Your task to perform on an android device: Search for the best rated headphones on Amazon. Image 0: 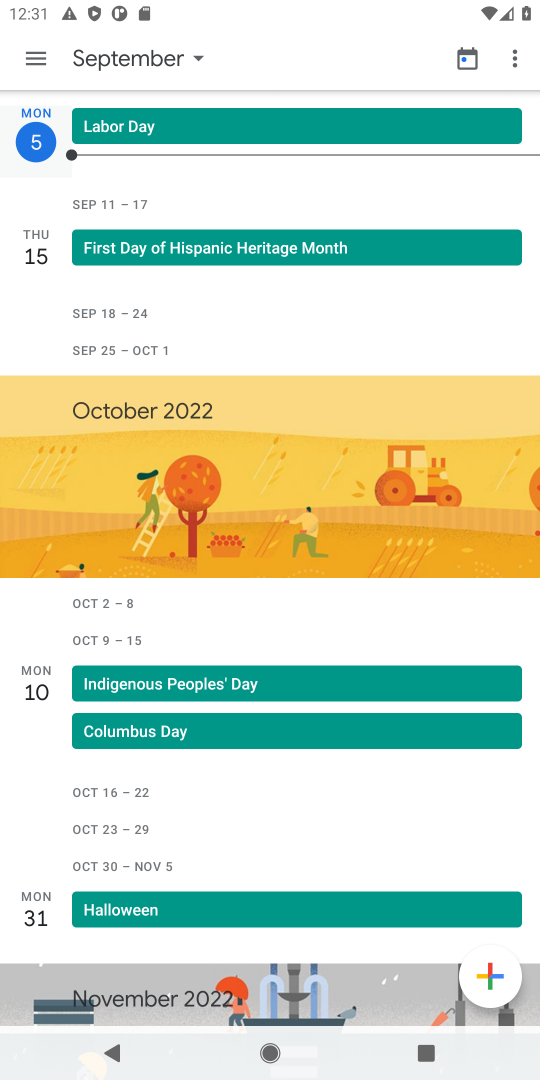
Step 0: press home button
Your task to perform on an android device: Search for the best rated headphones on Amazon. Image 1: 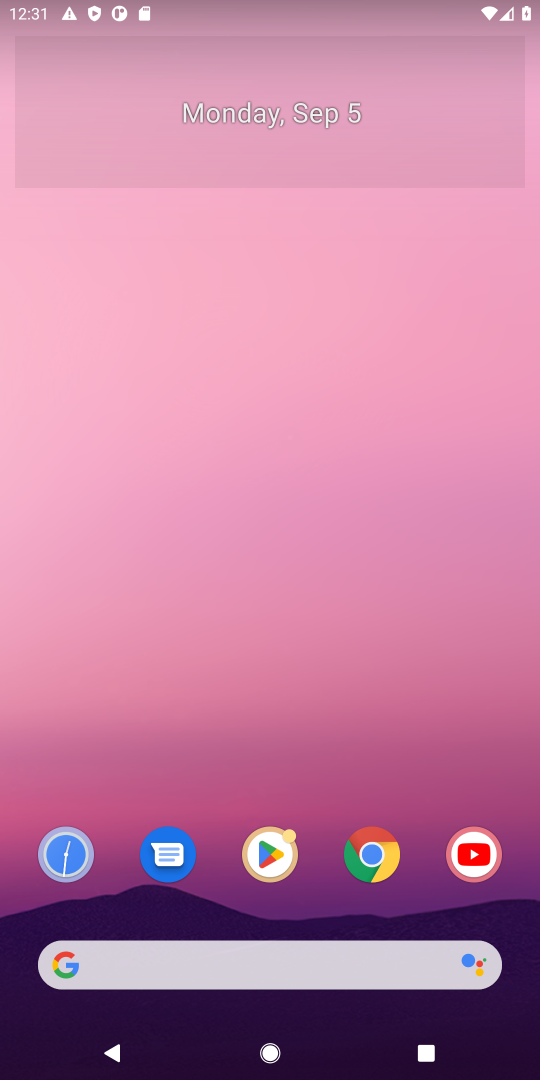
Step 1: click (284, 961)
Your task to perform on an android device: Search for the best rated headphones on Amazon. Image 2: 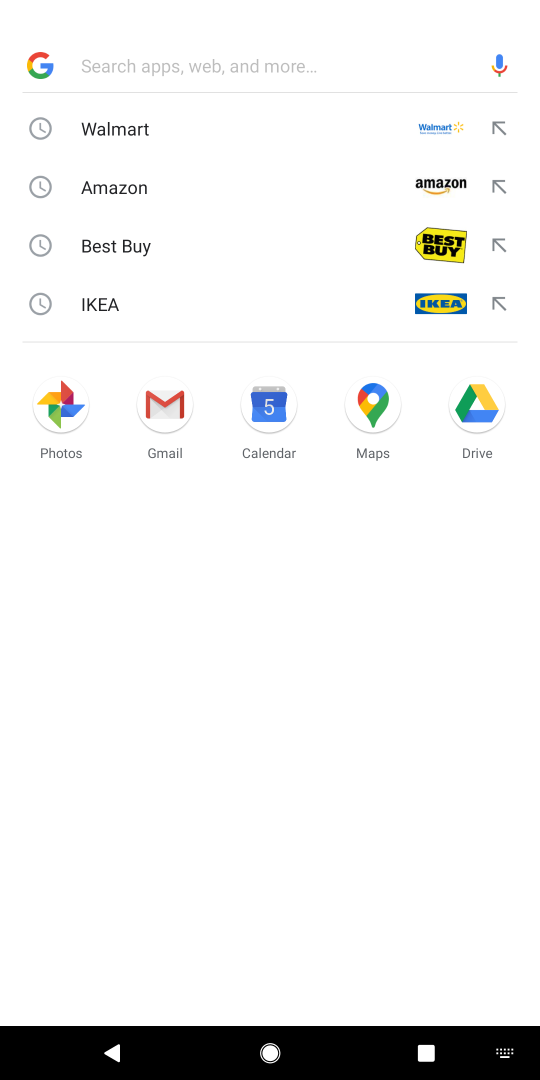
Step 2: type "amazon"
Your task to perform on an android device: Search for the best rated headphones on Amazon. Image 3: 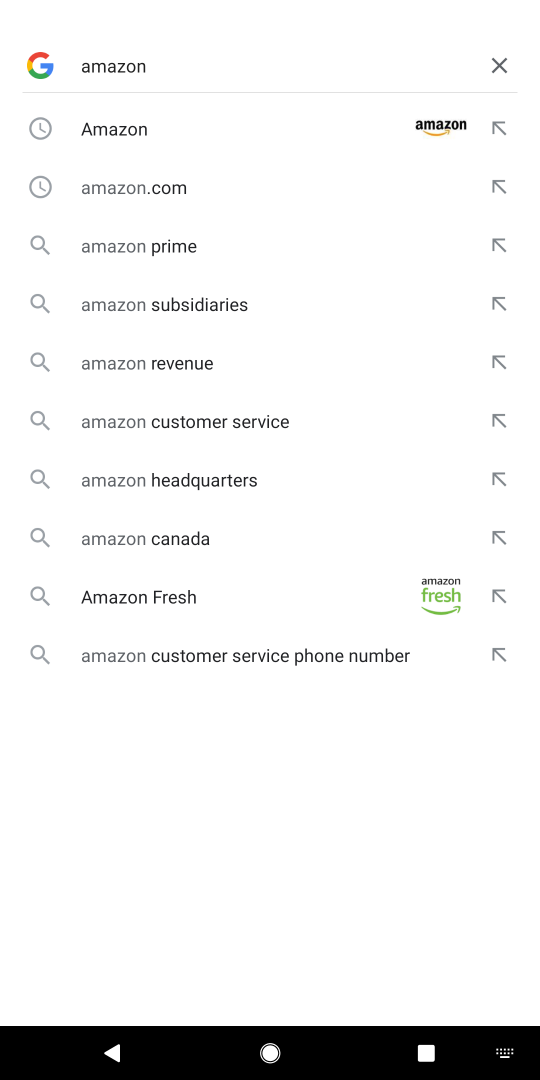
Step 3: press enter
Your task to perform on an android device: Search for the best rated headphones on Amazon. Image 4: 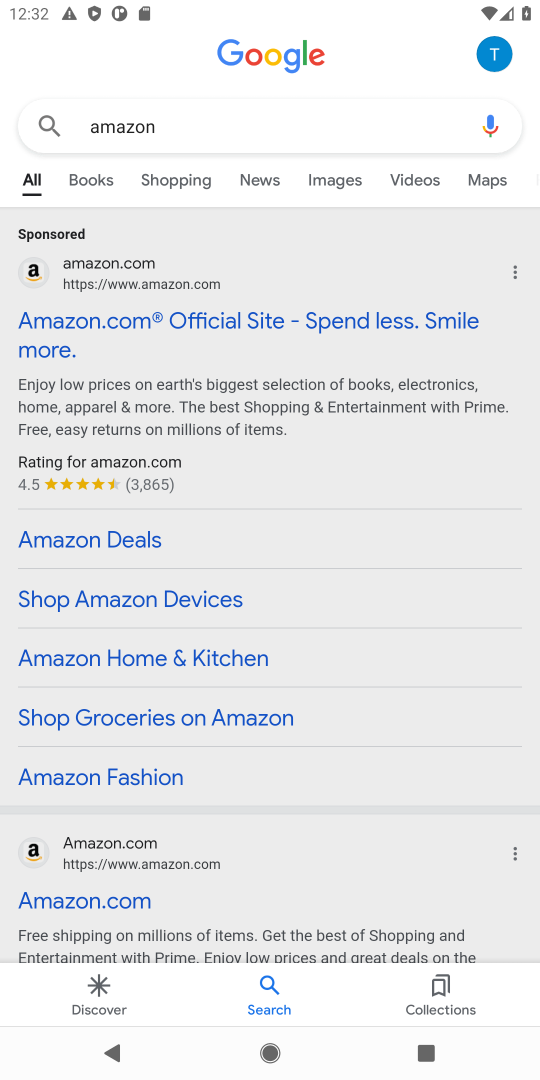
Step 4: click (114, 325)
Your task to perform on an android device: Search for the best rated headphones on Amazon. Image 5: 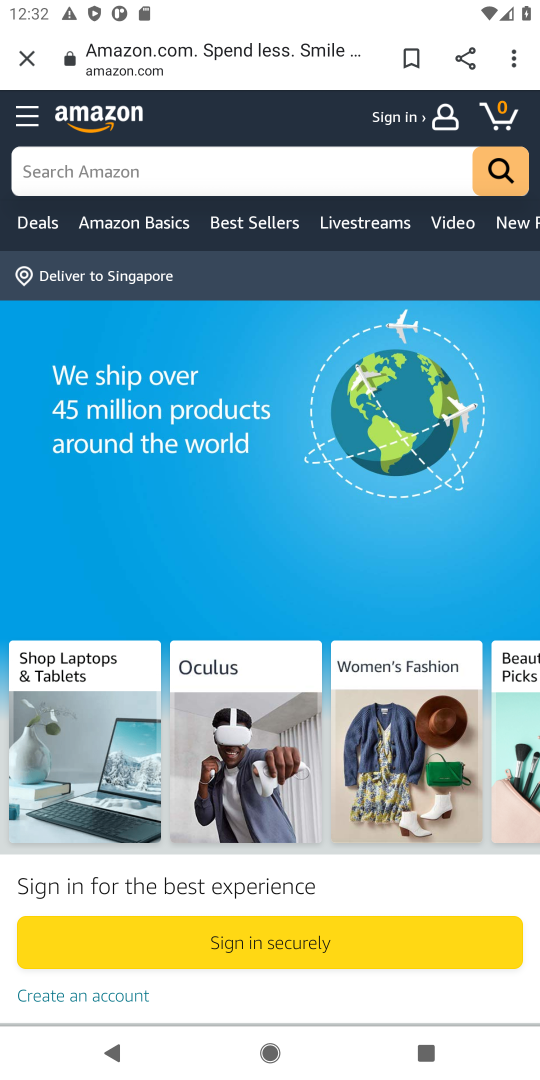
Step 5: click (130, 176)
Your task to perform on an android device: Search for the best rated headphones on Amazon. Image 6: 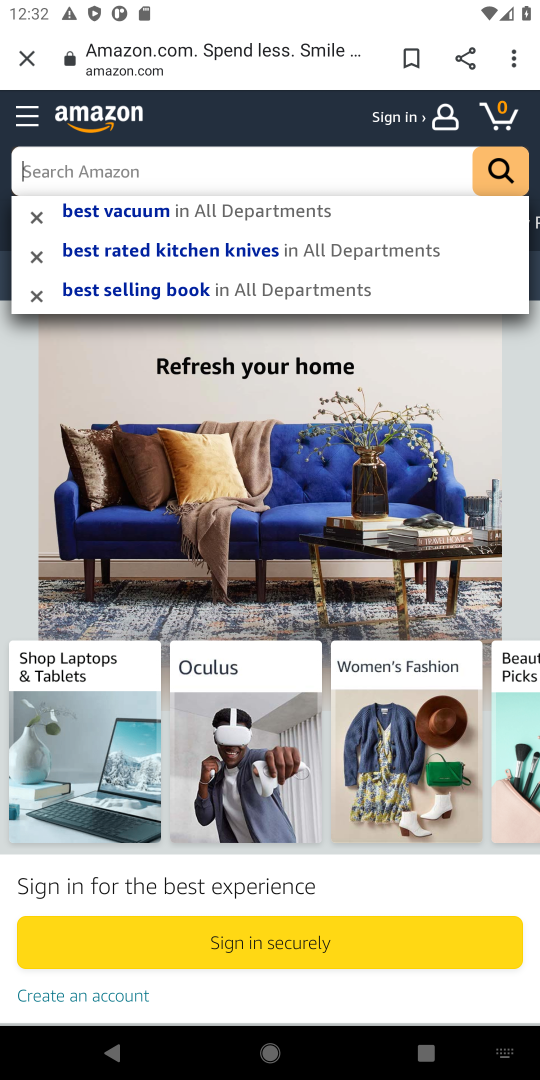
Step 6: type "best rated headphones"
Your task to perform on an android device: Search for the best rated headphones on Amazon. Image 7: 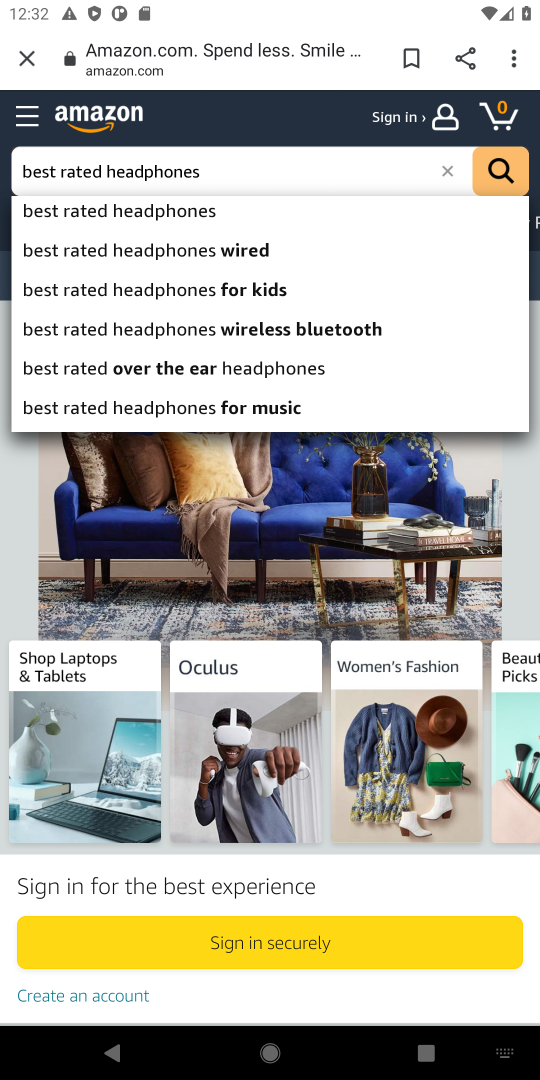
Step 7: click (136, 205)
Your task to perform on an android device: Search for the best rated headphones on Amazon. Image 8: 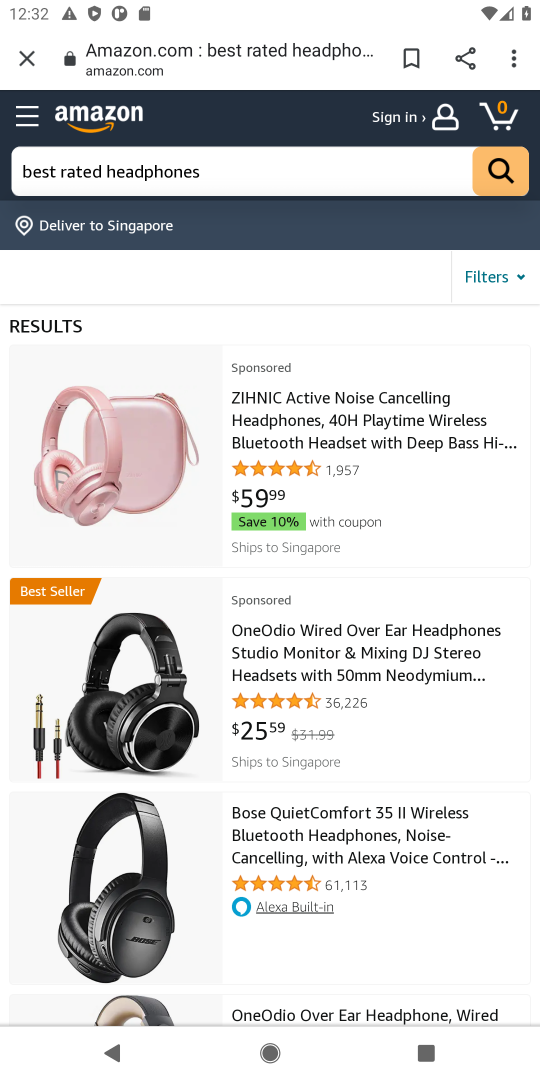
Step 8: task complete